Your task to perform on an android device: Search for sushi restaurants on Maps Image 0: 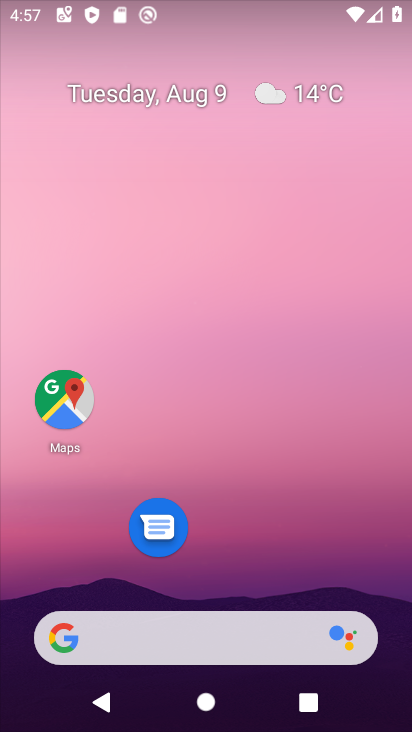
Step 0: click (65, 380)
Your task to perform on an android device: Search for sushi restaurants on Maps Image 1: 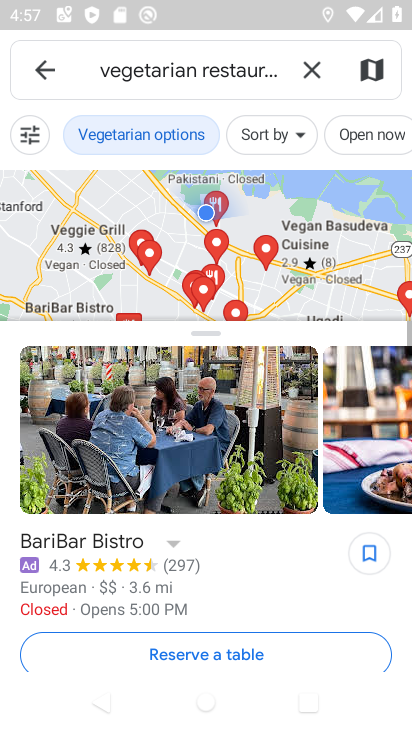
Step 1: click (313, 64)
Your task to perform on an android device: Search for sushi restaurants on Maps Image 2: 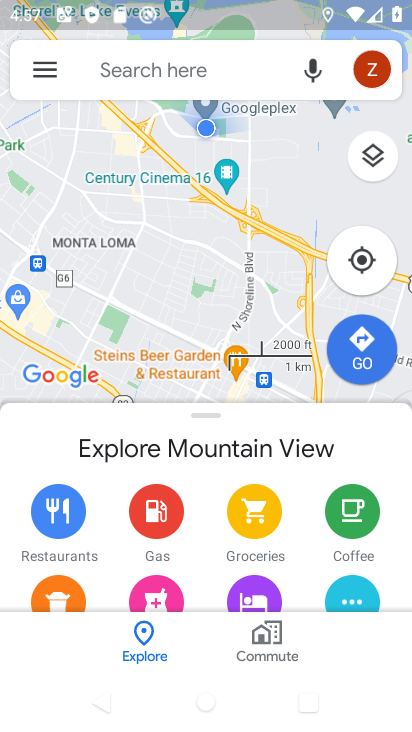
Step 2: click (206, 75)
Your task to perform on an android device: Search for sushi restaurants on Maps Image 3: 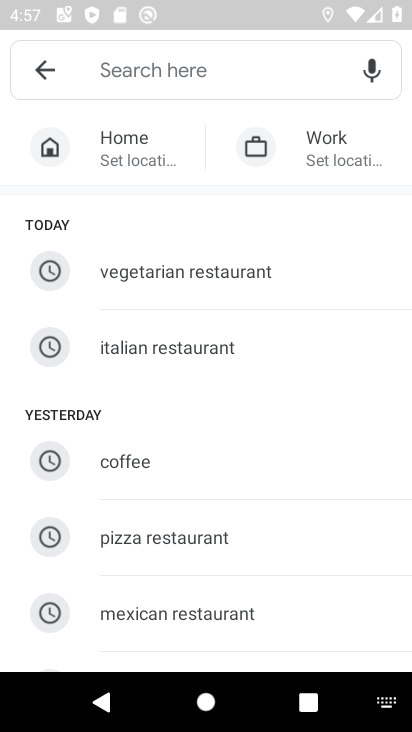
Step 3: type "sushi"
Your task to perform on an android device: Search for sushi restaurants on Maps Image 4: 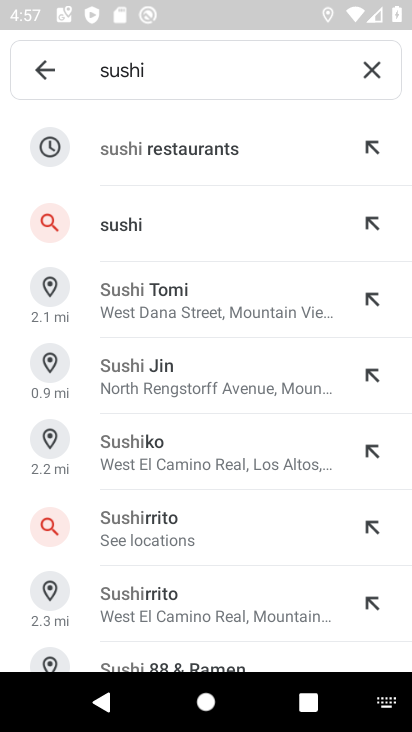
Step 4: click (221, 150)
Your task to perform on an android device: Search for sushi restaurants on Maps Image 5: 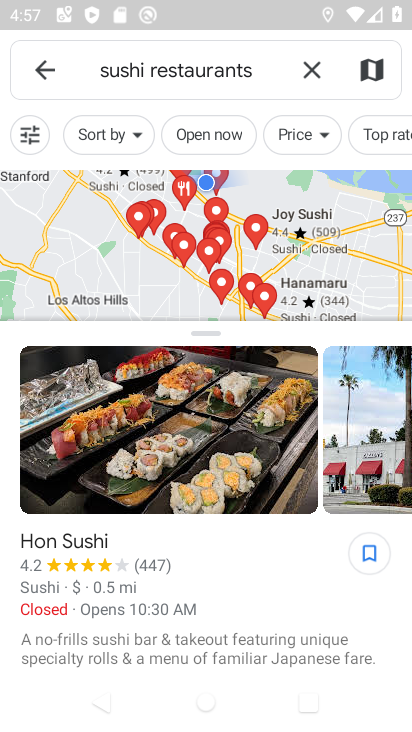
Step 5: task complete